Your task to perform on an android device: open wifi settings Image 0: 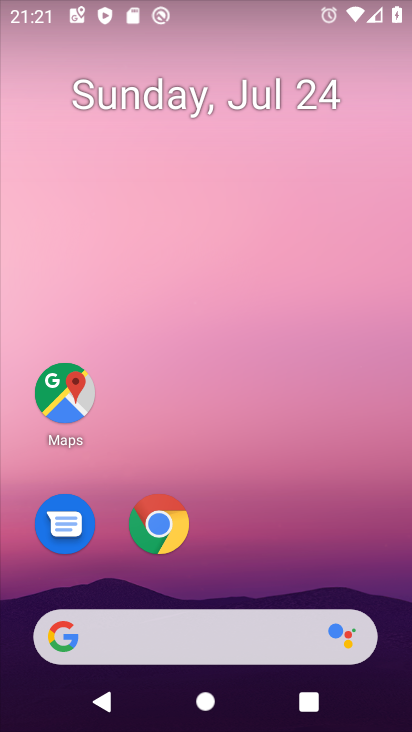
Step 0: drag from (239, 514) to (257, 0)
Your task to perform on an android device: open wifi settings Image 1: 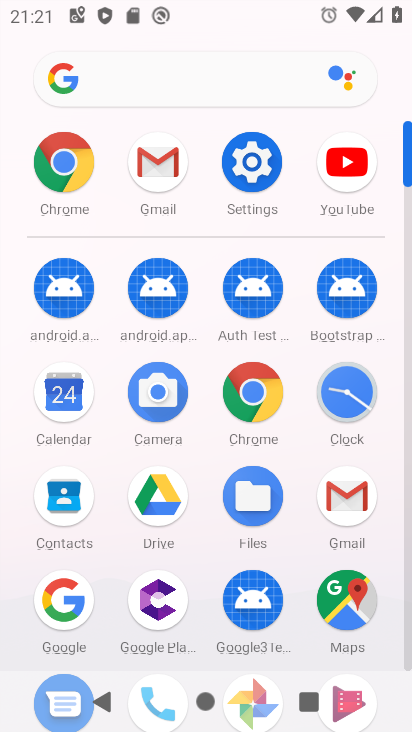
Step 1: click (253, 166)
Your task to perform on an android device: open wifi settings Image 2: 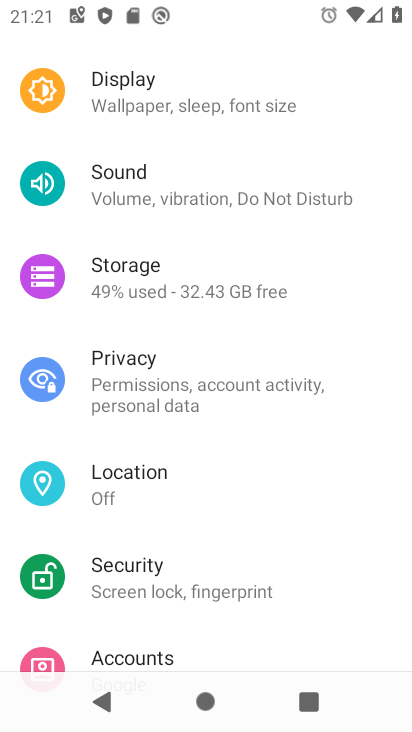
Step 2: drag from (245, 148) to (222, 605)
Your task to perform on an android device: open wifi settings Image 3: 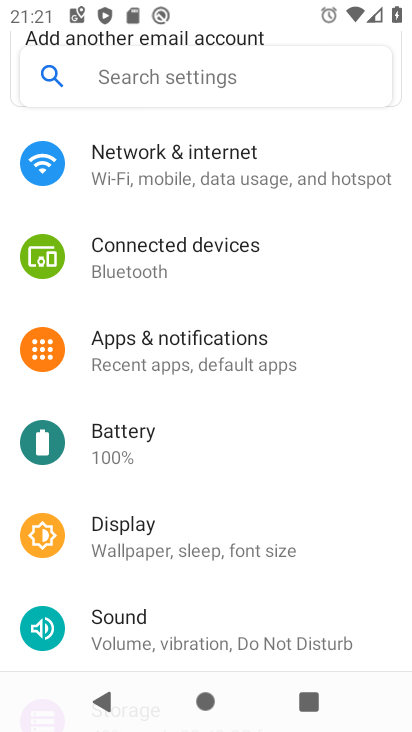
Step 3: click (217, 172)
Your task to perform on an android device: open wifi settings Image 4: 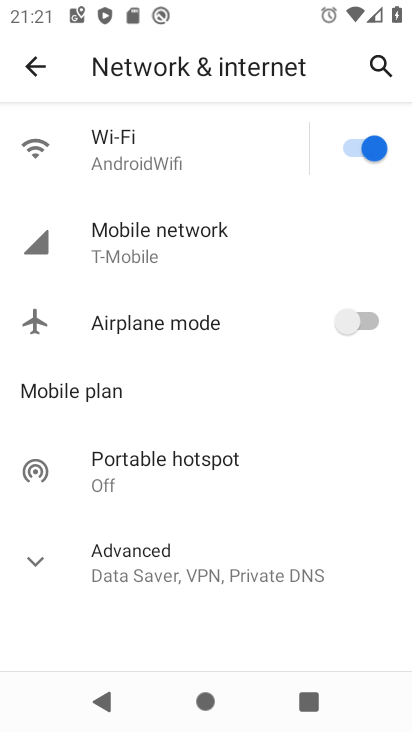
Step 4: click (147, 142)
Your task to perform on an android device: open wifi settings Image 5: 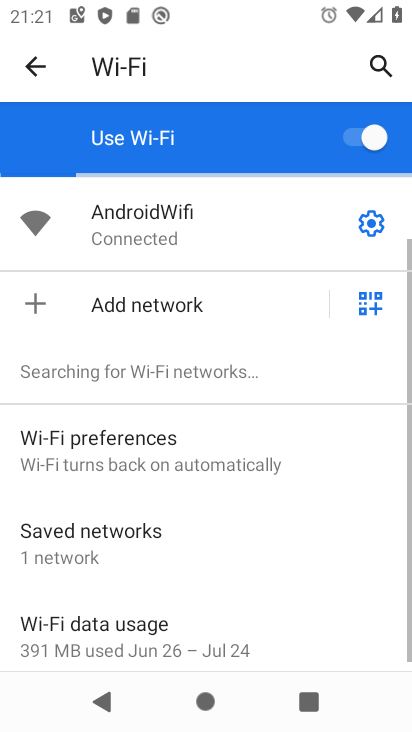
Step 5: task complete